Your task to perform on an android device: Toggle the flashlight Image 0: 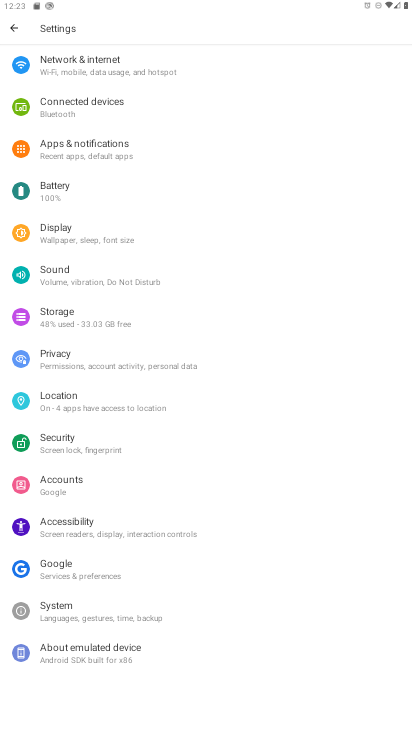
Step 0: press home button
Your task to perform on an android device: Toggle the flashlight Image 1: 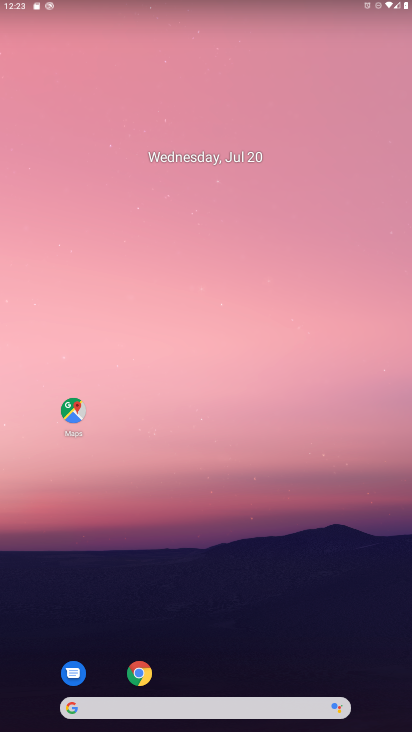
Step 1: task complete